Your task to perform on an android device: change notifications settings Image 0: 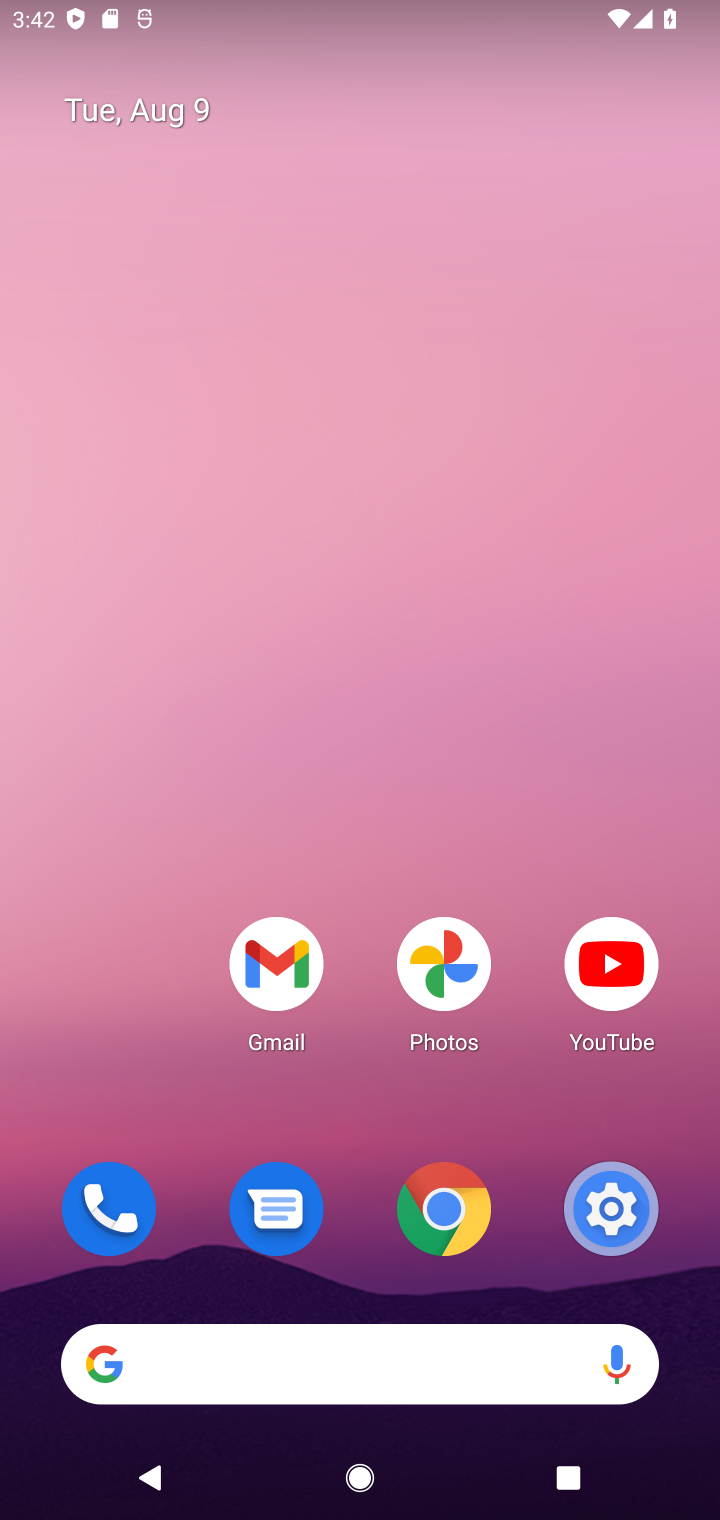
Step 0: click (614, 1207)
Your task to perform on an android device: change notifications settings Image 1: 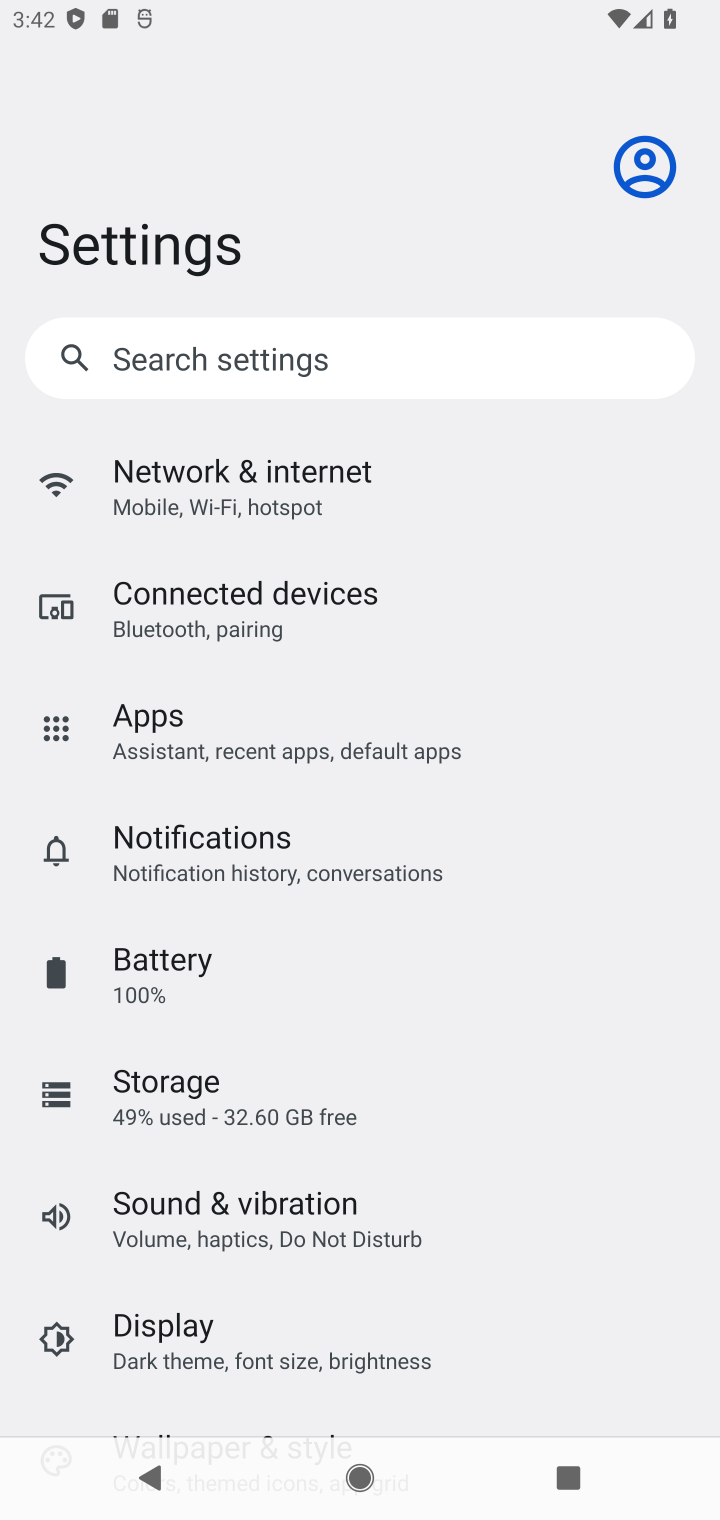
Step 1: click (194, 860)
Your task to perform on an android device: change notifications settings Image 2: 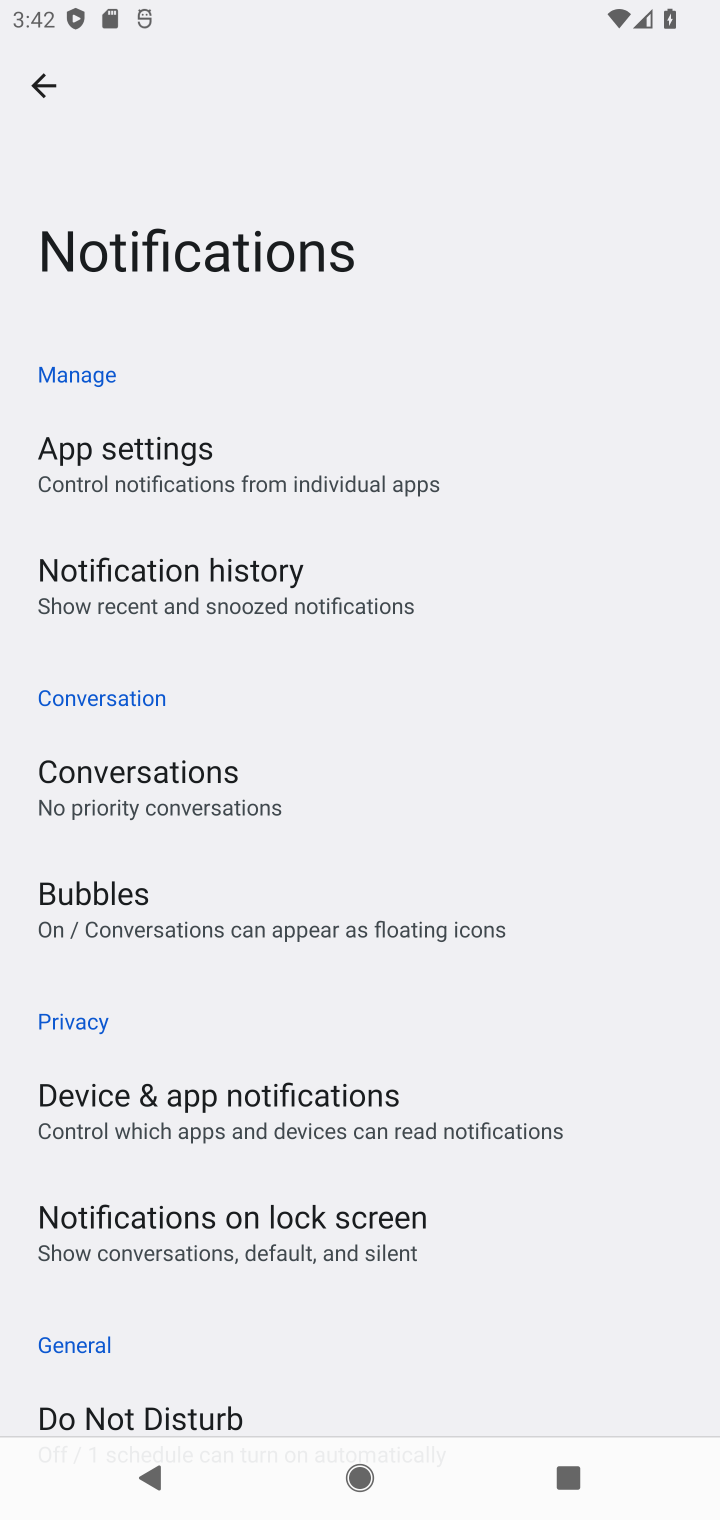
Step 2: click (157, 446)
Your task to perform on an android device: change notifications settings Image 3: 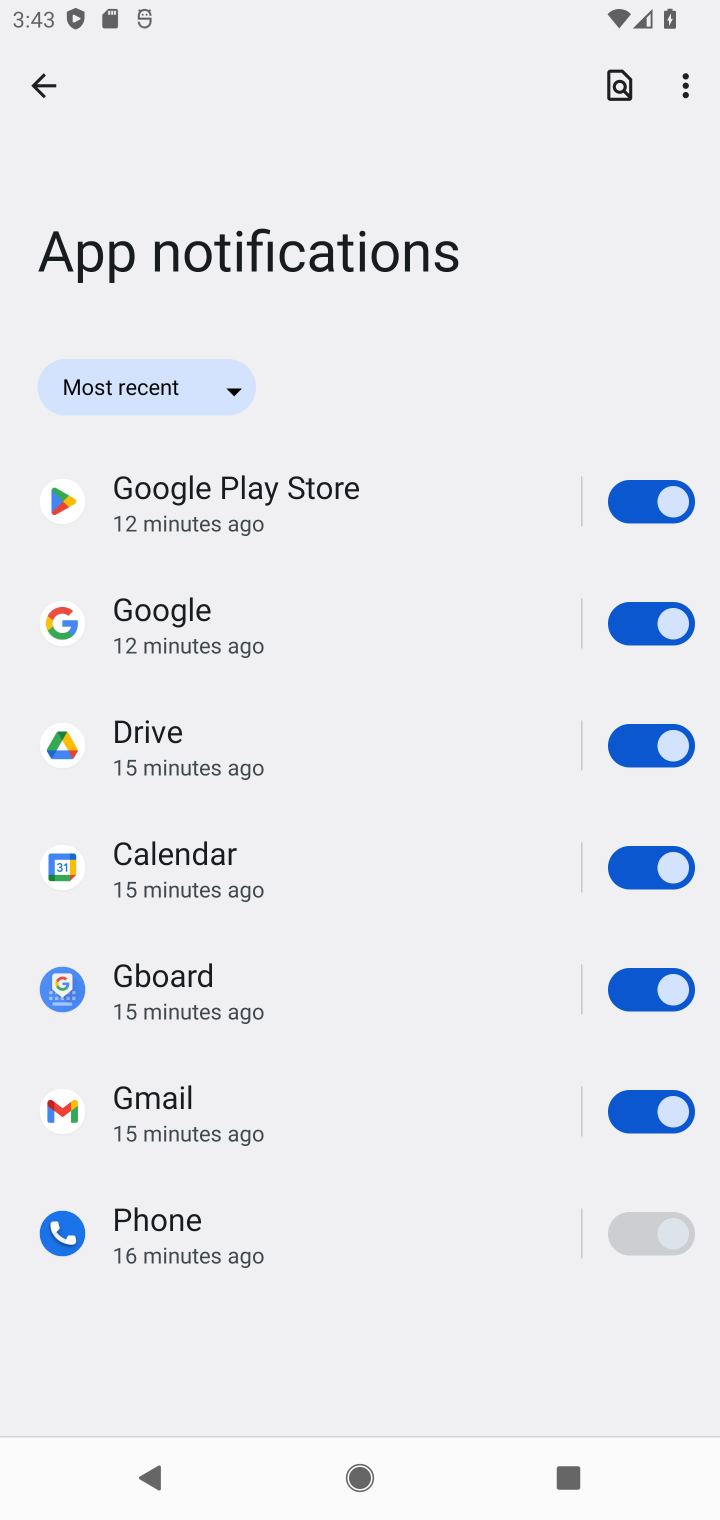
Step 3: click (238, 371)
Your task to perform on an android device: change notifications settings Image 4: 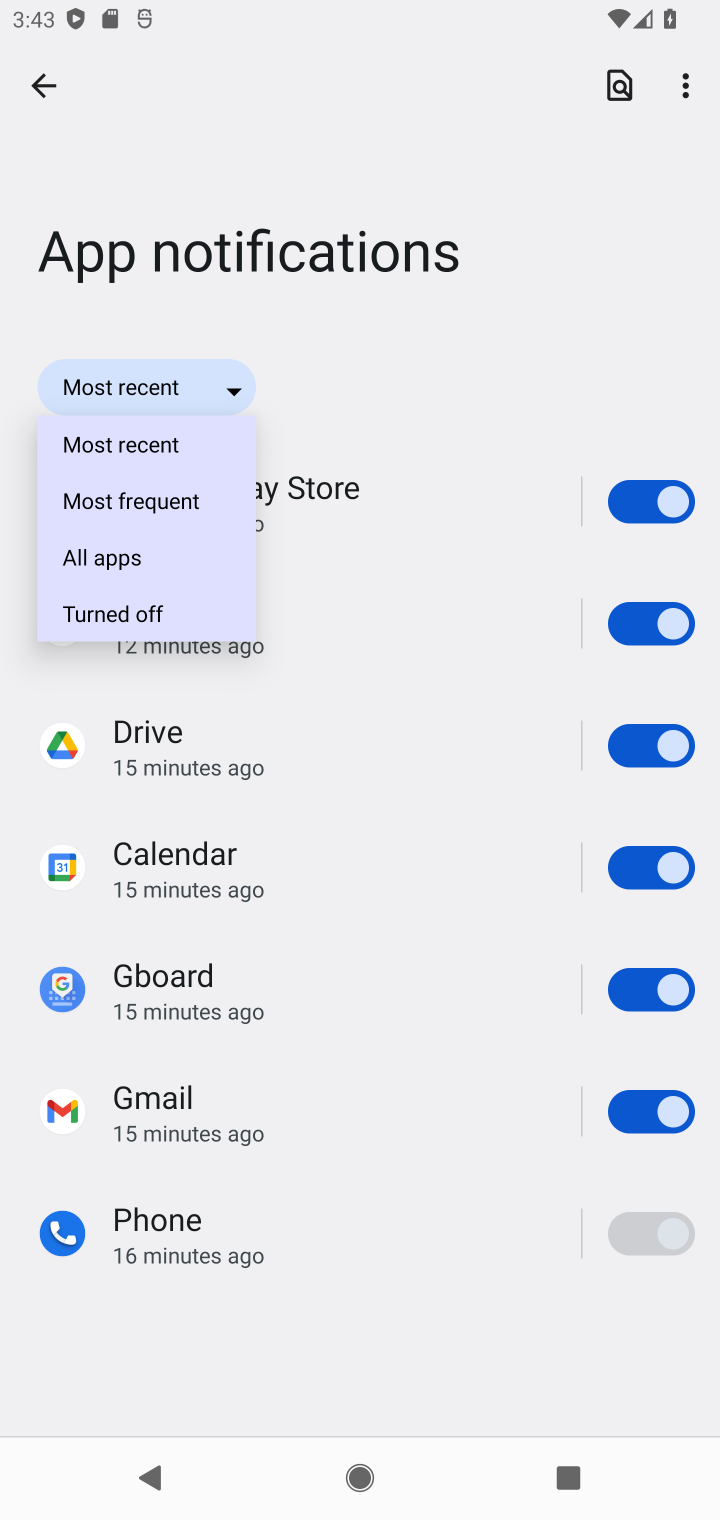
Step 4: click (138, 606)
Your task to perform on an android device: change notifications settings Image 5: 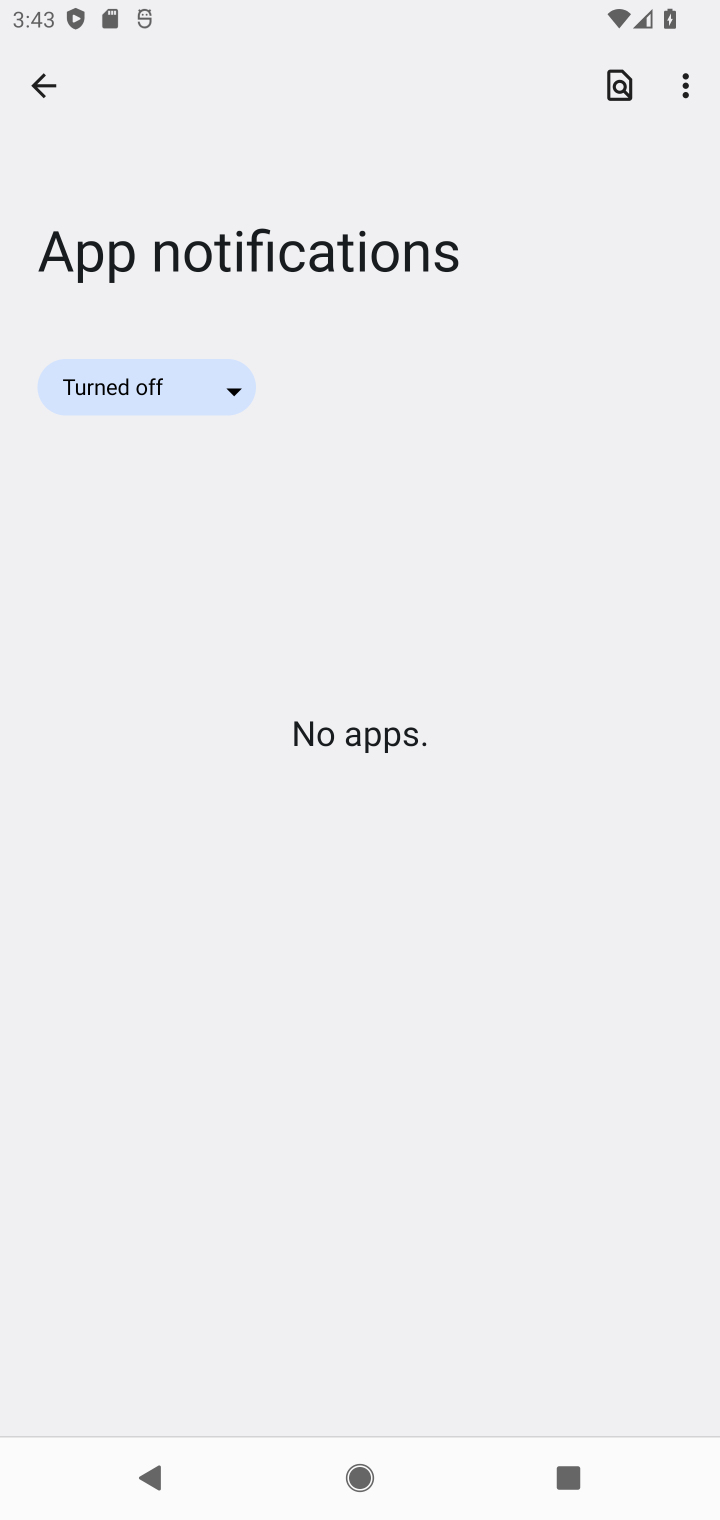
Step 5: task complete